Your task to perform on an android device: Open the phone app and click the voicemail tab. Image 0: 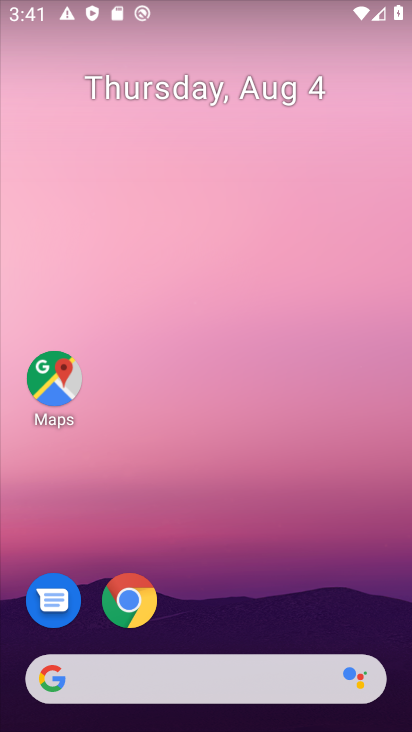
Step 0: press home button
Your task to perform on an android device: Open the phone app and click the voicemail tab. Image 1: 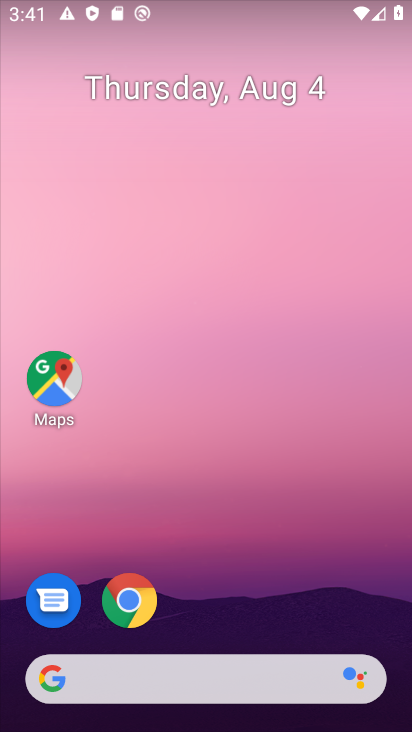
Step 1: drag from (267, 610) to (311, 139)
Your task to perform on an android device: Open the phone app and click the voicemail tab. Image 2: 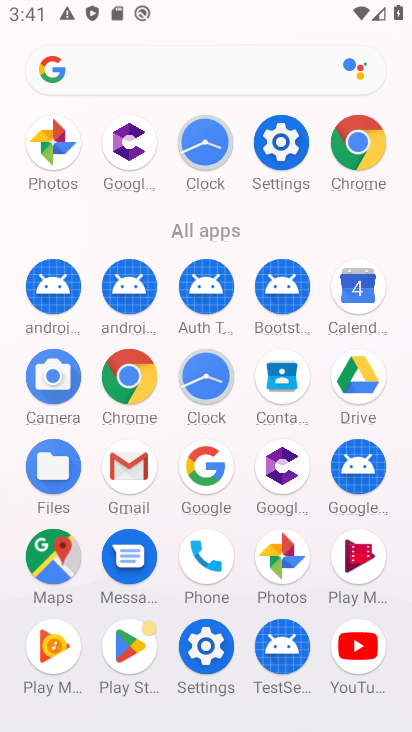
Step 2: drag from (246, 531) to (260, 225)
Your task to perform on an android device: Open the phone app and click the voicemail tab. Image 3: 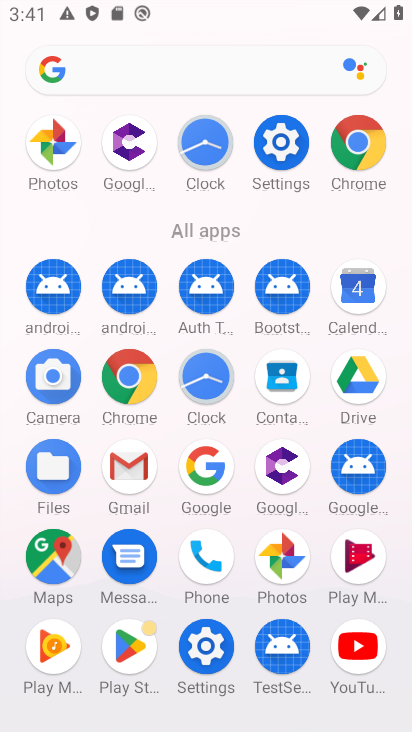
Step 3: click (210, 563)
Your task to perform on an android device: Open the phone app and click the voicemail tab. Image 4: 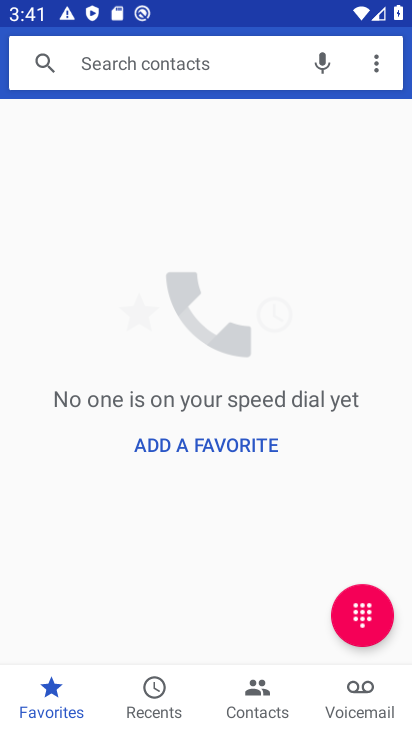
Step 4: click (373, 682)
Your task to perform on an android device: Open the phone app and click the voicemail tab. Image 5: 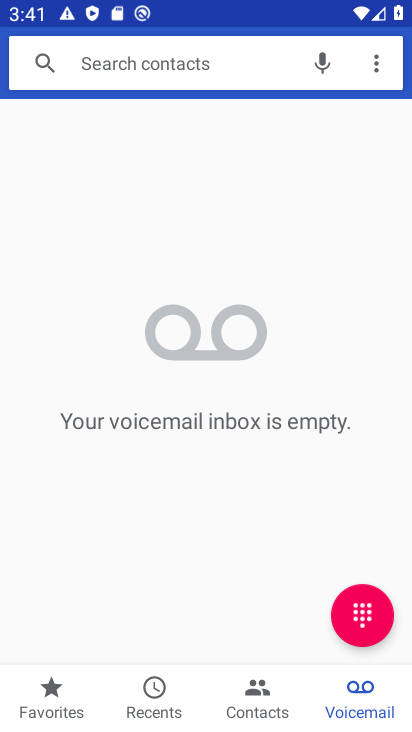
Step 5: task complete